Your task to perform on an android device: Open settings on Google Maps Image 0: 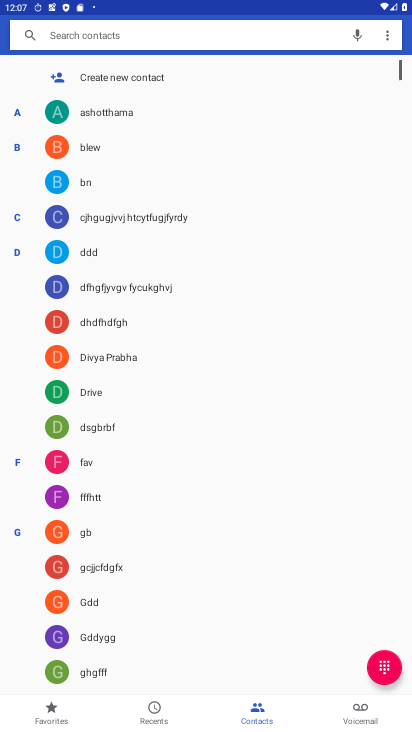
Step 0: press home button
Your task to perform on an android device: Open settings on Google Maps Image 1: 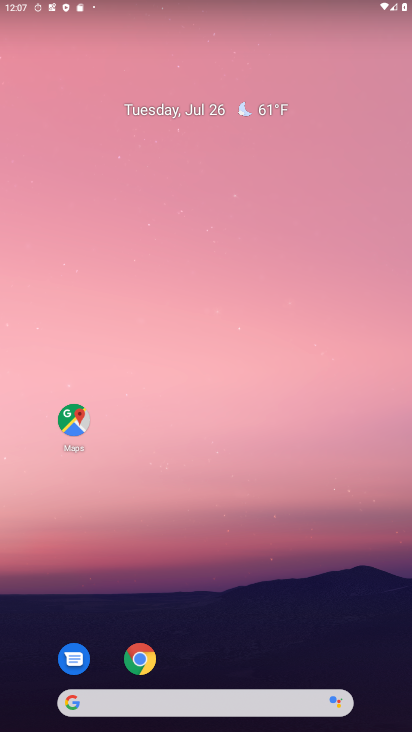
Step 1: click (71, 423)
Your task to perform on an android device: Open settings on Google Maps Image 2: 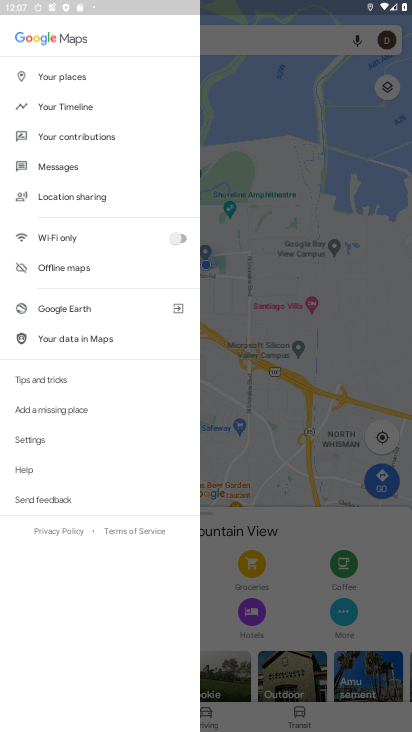
Step 2: click (53, 448)
Your task to perform on an android device: Open settings on Google Maps Image 3: 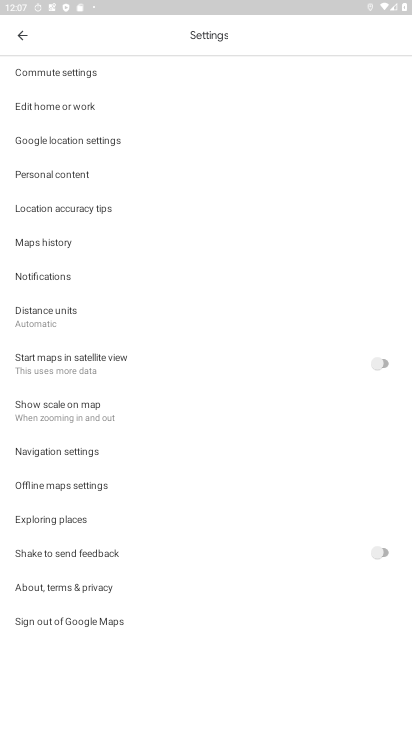
Step 3: task complete